Your task to perform on an android device: find snoozed emails in the gmail app Image 0: 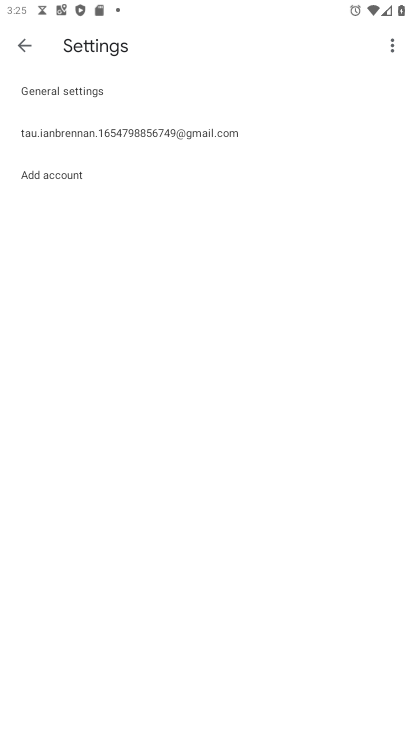
Step 0: press home button
Your task to perform on an android device: find snoozed emails in the gmail app Image 1: 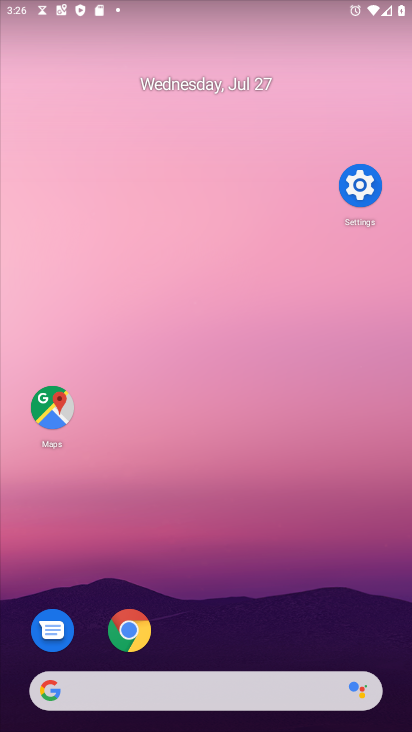
Step 1: drag from (289, 463) to (261, 5)
Your task to perform on an android device: find snoozed emails in the gmail app Image 2: 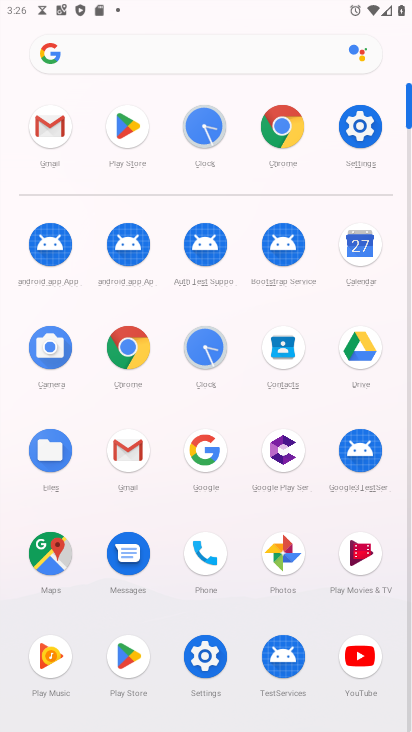
Step 2: click (61, 125)
Your task to perform on an android device: find snoozed emails in the gmail app Image 3: 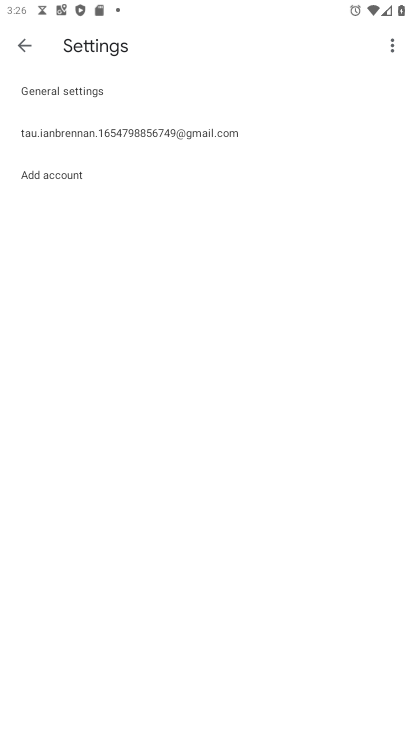
Step 3: click (28, 50)
Your task to perform on an android device: find snoozed emails in the gmail app Image 4: 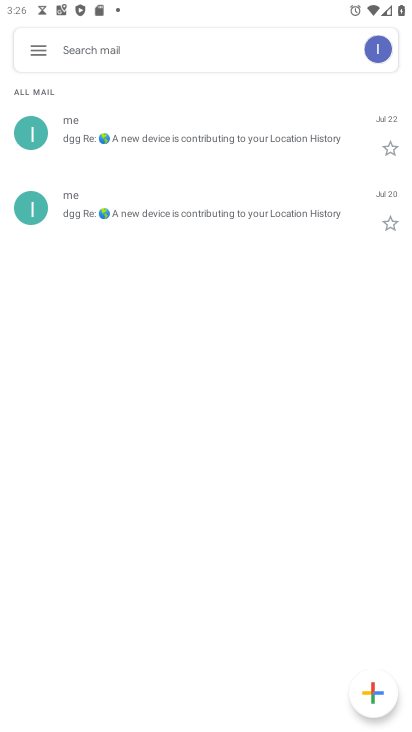
Step 4: click (29, 49)
Your task to perform on an android device: find snoozed emails in the gmail app Image 5: 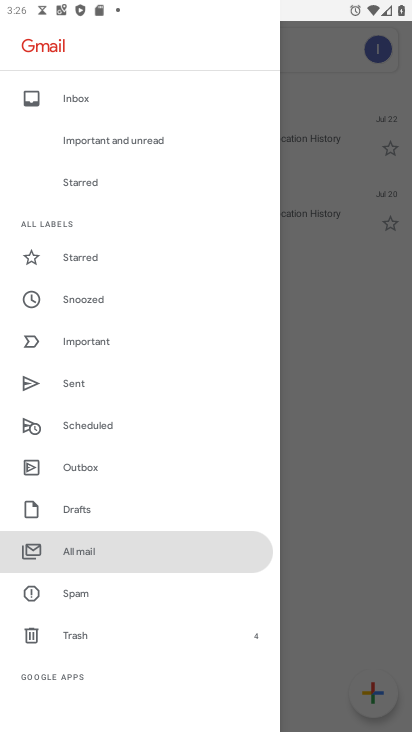
Step 5: click (83, 298)
Your task to perform on an android device: find snoozed emails in the gmail app Image 6: 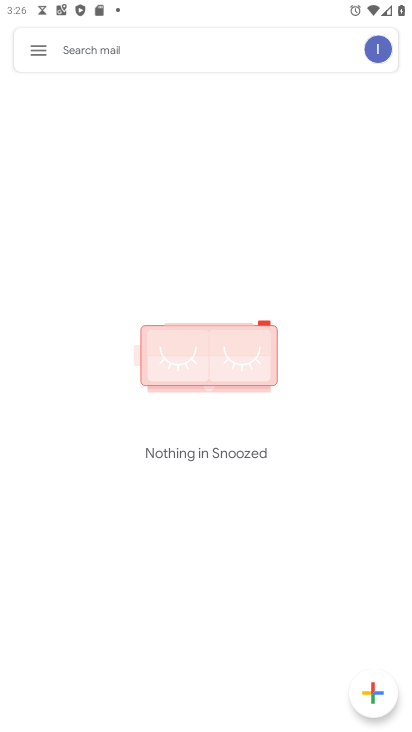
Step 6: task complete